Your task to perform on an android device: toggle wifi Image 0: 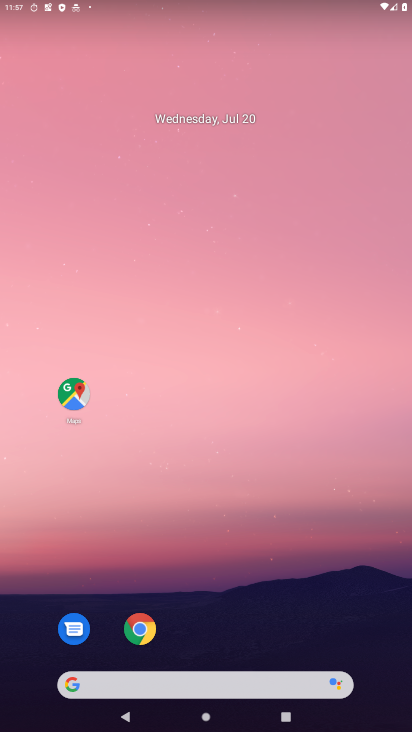
Step 0: drag from (185, 677) to (198, 19)
Your task to perform on an android device: toggle wifi Image 1: 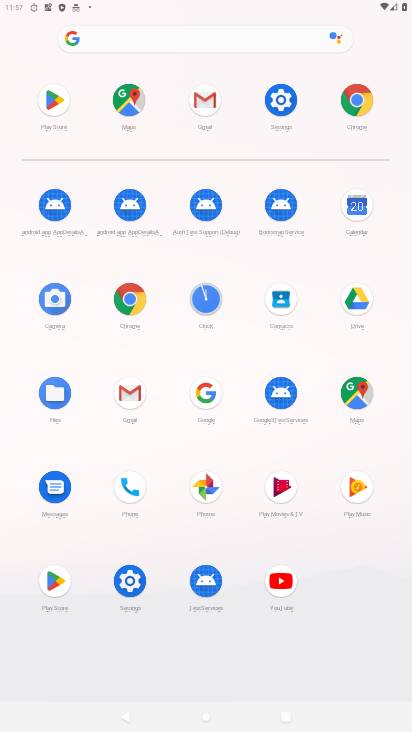
Step 1: click (280, 683)
Your task to perform on an android device: toggle wifi Image 2: 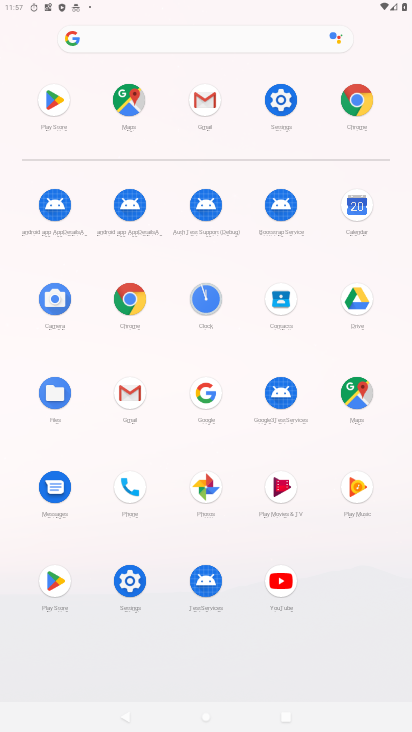
Step 2: click (280, 108)
Your task to perform on an android device: toggle wifi Image 3: 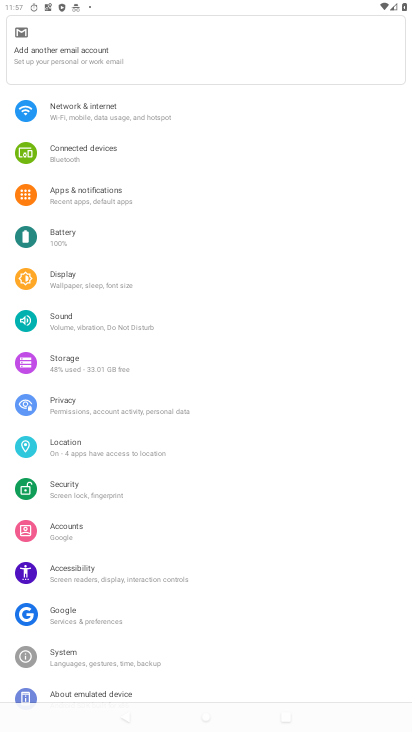
Step 3: click (91, 115)
Your task to perform on an android device: toggle wifi Image 4: 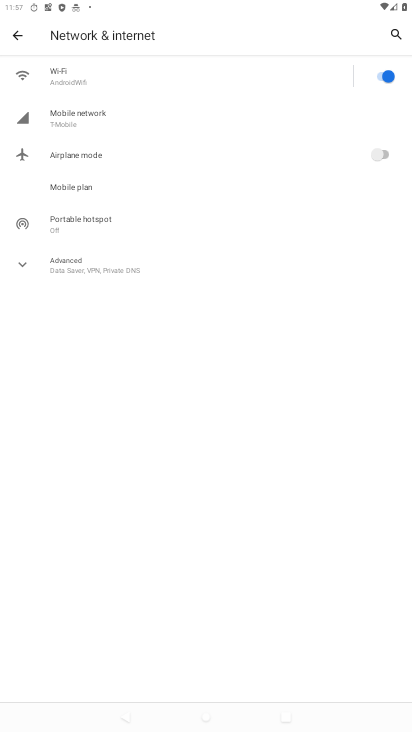
Step 4: click (89, 68)
Your task to perform on an android device: toggle wifi Image 5: 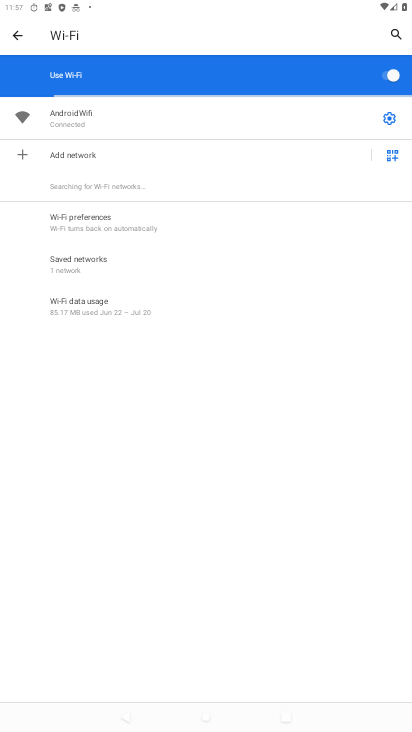
Step 5: click (388, 72)
Your task to perform on an android device: toggle wifi Image 6: 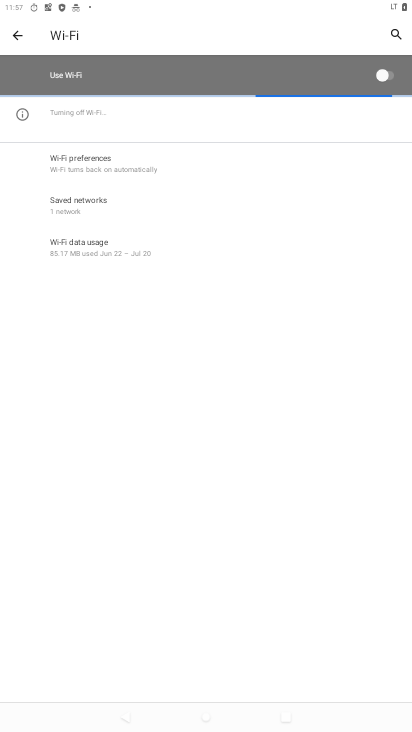
Step 6: task complete